Your task to perform on an android device: change the clock display to digital Image 0: 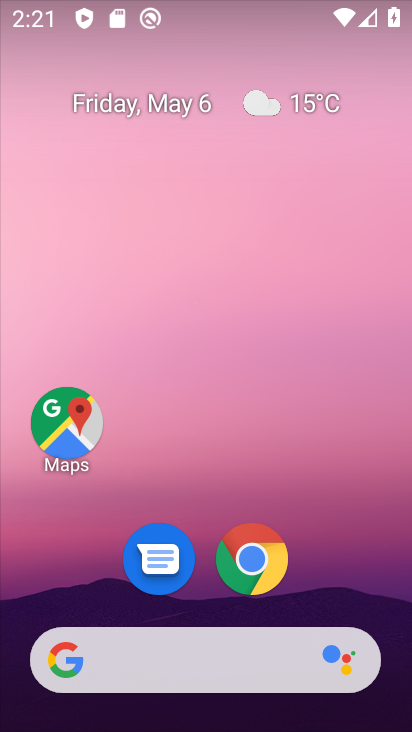
Step 0: drag from (369, 535) to (356, 168)
Your task to perform on an android device: change the clock display to digital Image 1: 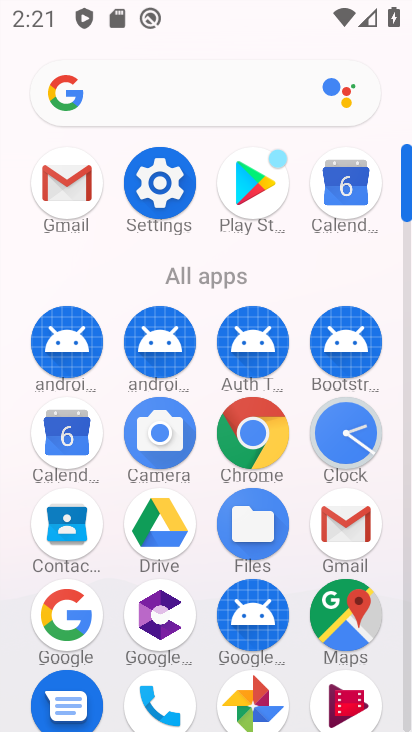
Step 1: click (178, 193)
Your task to perform on an android device: change the clock display to digital Image 2: 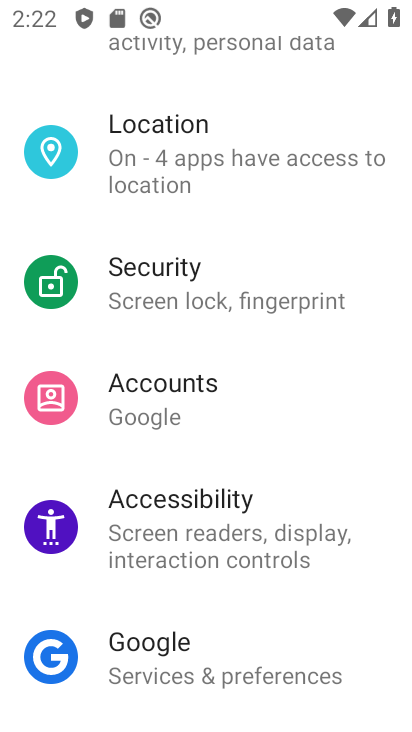
Step 2: drag from (313, 361) to (394, 694)
Your task to perform on an android device: change the clock display to digital Image 3: 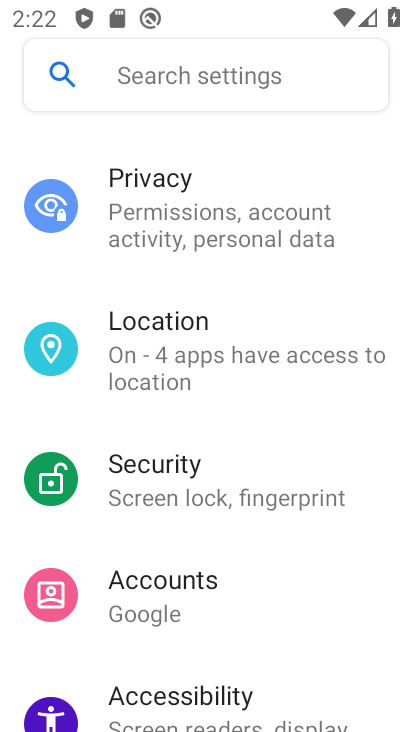
Step 3: press home button
Your task to perform on an android device: change the clock display to digital Image 4: 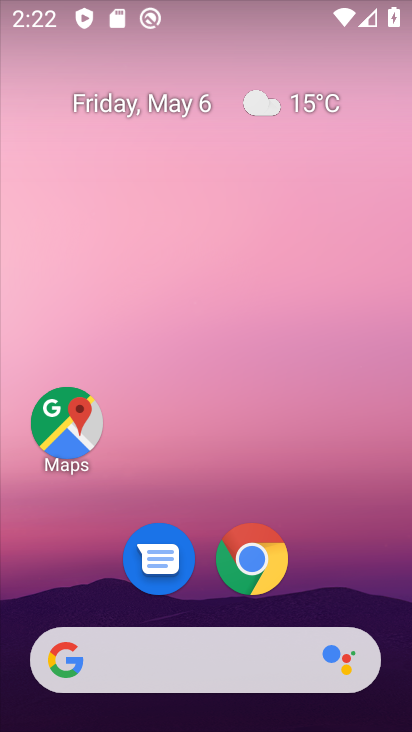
Step 4: drag from (339, 572) to (305, 161)
Your task to perform on an android device: change the clock display to digital Image 5: 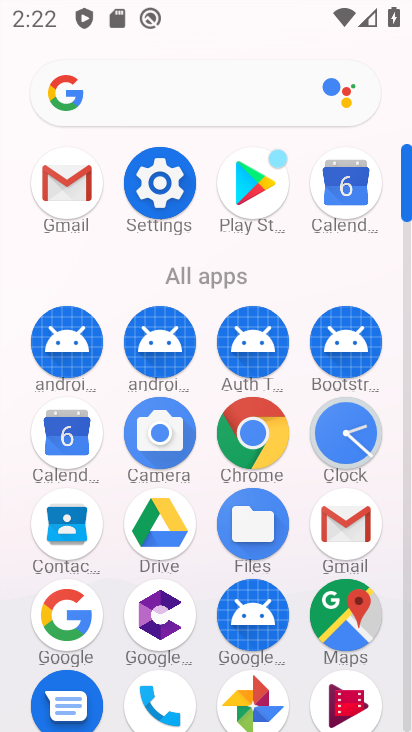
Step 5: click (352, 444)
Your task to perform on an android device: change the clock display to digital Image 6: 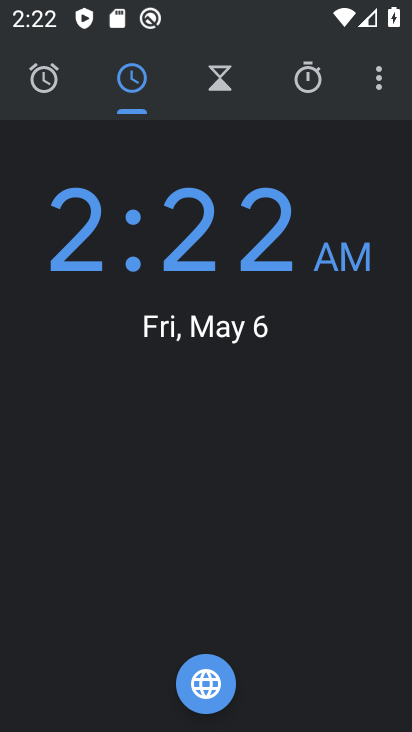
Step 6: click (376, 96)
Your task to perform on an android device: change the clock display to digital Image 7: 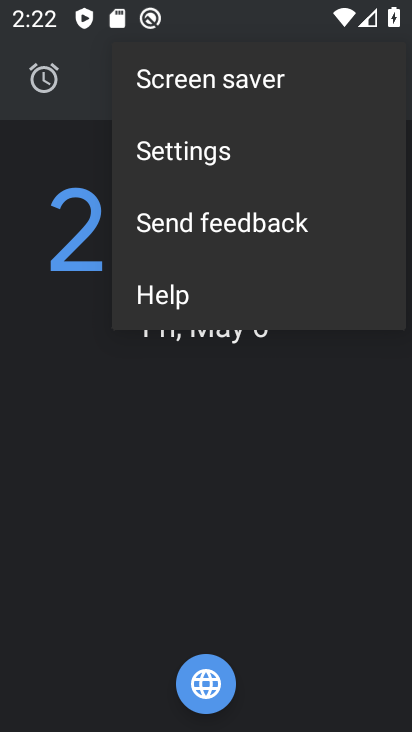
Step 7: click (226, 160)
Your task to perform on an android device: change the clock display to digital Image 8: 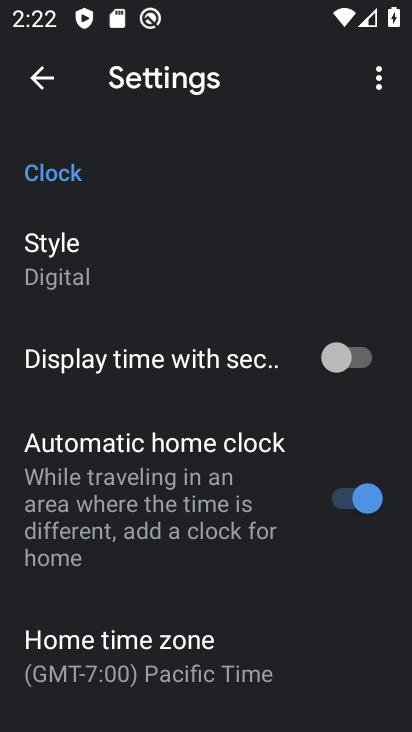
Step 8: task complete